Your task to perform on an android device: Do I have any events today? Image 0: 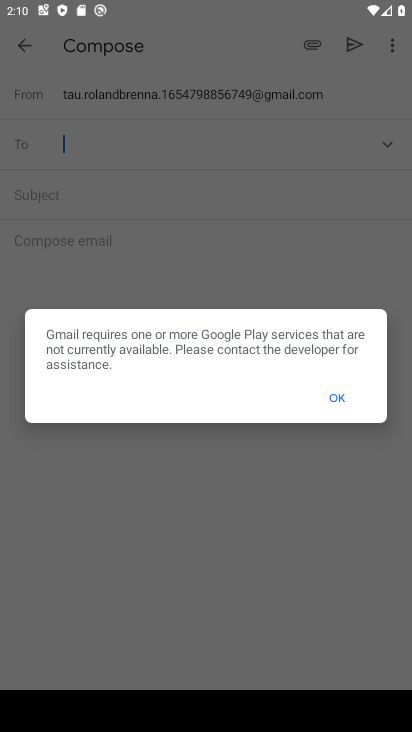
Step 0: click (343, 395)
Your task to perform on an android device: Do I have any events today? Image 1: 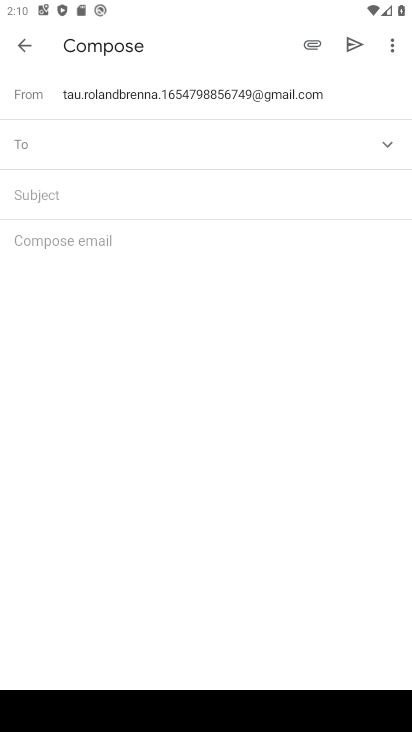
Step 1: press home button
Your task to perform on an android device: Do I have any events today? Image 2: 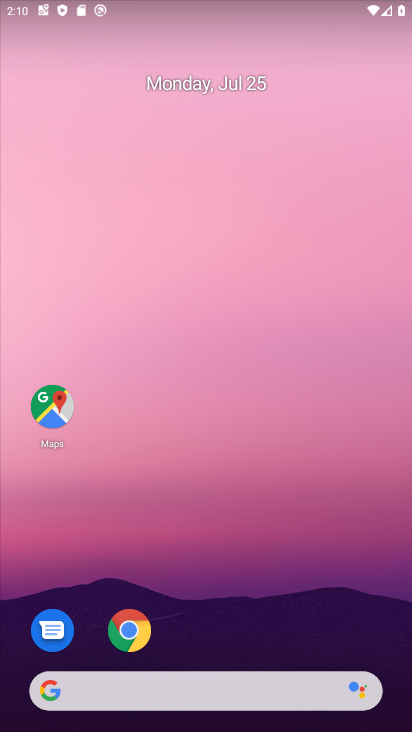
Step 2: drag from (245, 647) to (214, 118)
Your task to perform on an android device: Do I have any events today? Image 3: 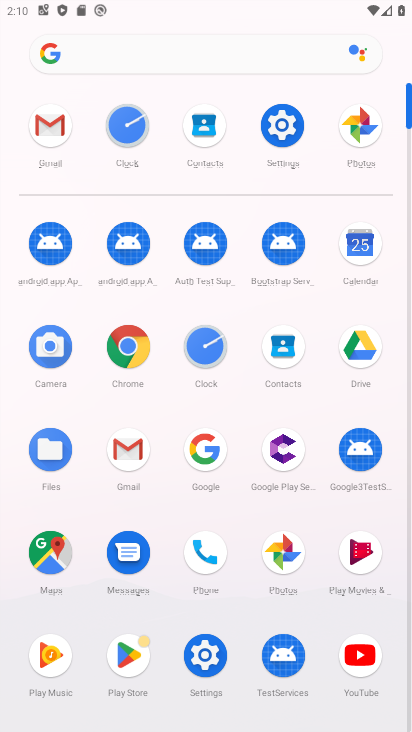
Step 3: click (205, 159)
Your task to perform on an android device: Do I have any events today? Image 4: 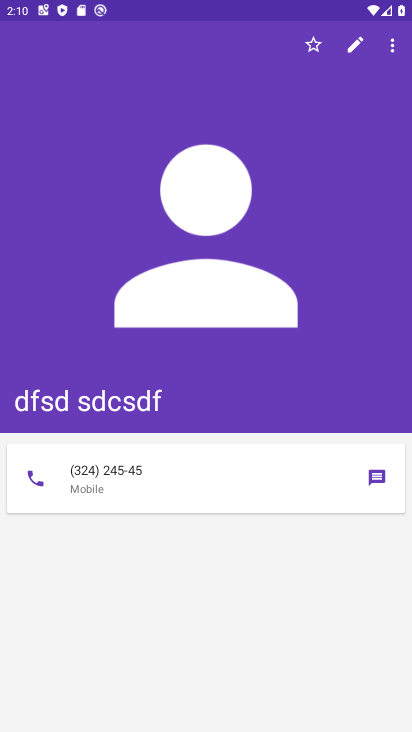
Step 4: task complete